Your task to perform on an android device: turn vacation reply on in the gmail app Image 0: 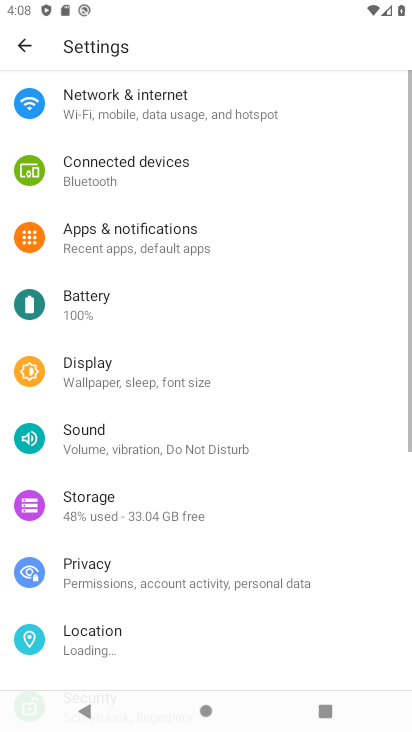
Step 0: press home button
Your task to perform on an android device: turn vacation reply on in the gmail app Image 1: 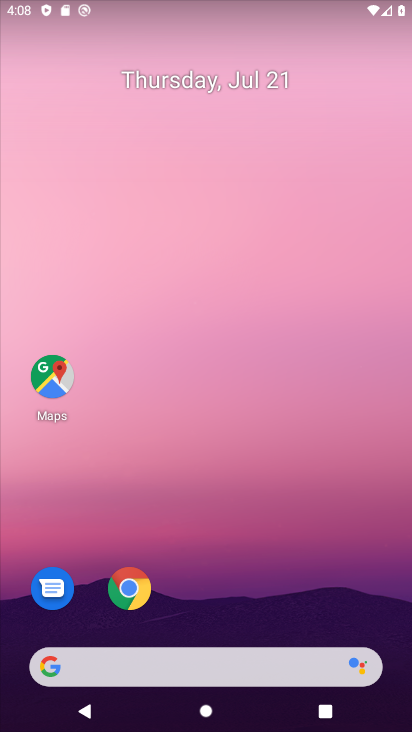
Step 1: click (55, 375)
Your task to perform on an android device: turn vacation reply on in the gmail app Image 2: 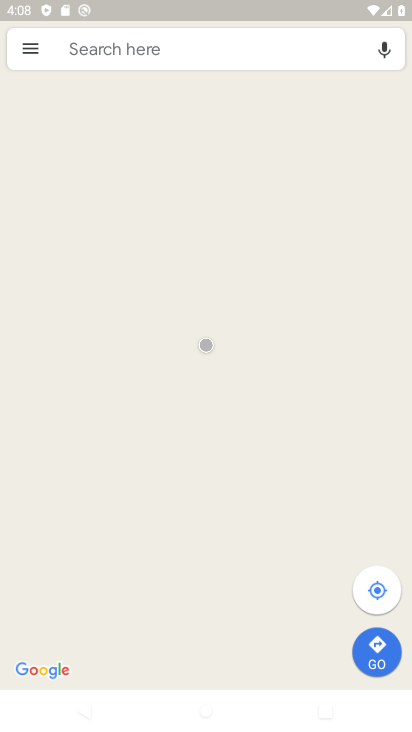
Step 2: task complete